Your task to perform on an android device: change text size in settings app Image 0: 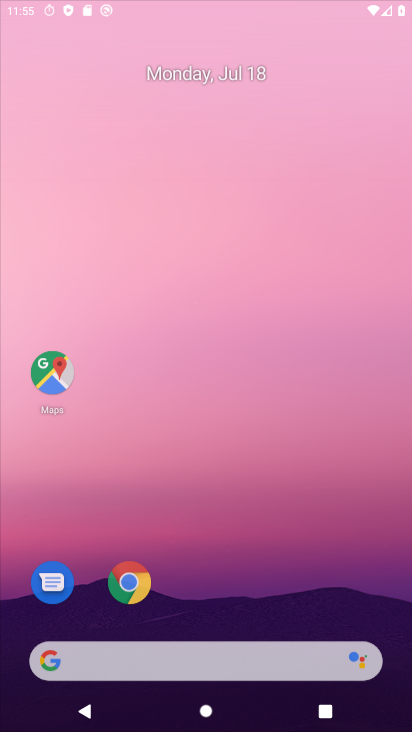
Step 0: click (197, 206)
Your task to perform on an android device: change text size in settings app Image 1: 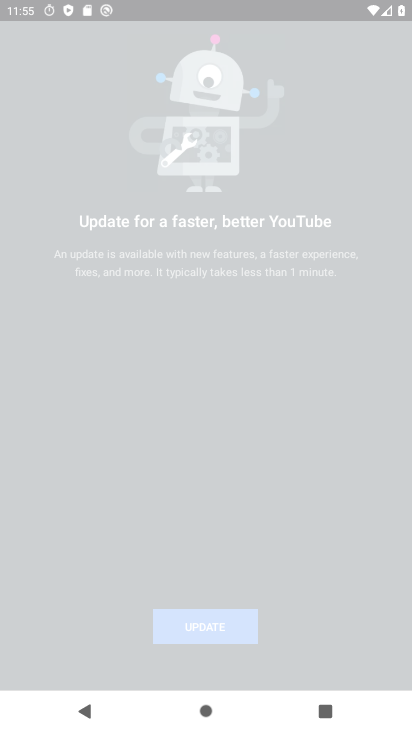
Step 1: drag from (245, 535) to (245, 132)
Your task to perform on an android device: change text size in settings app Image 2: 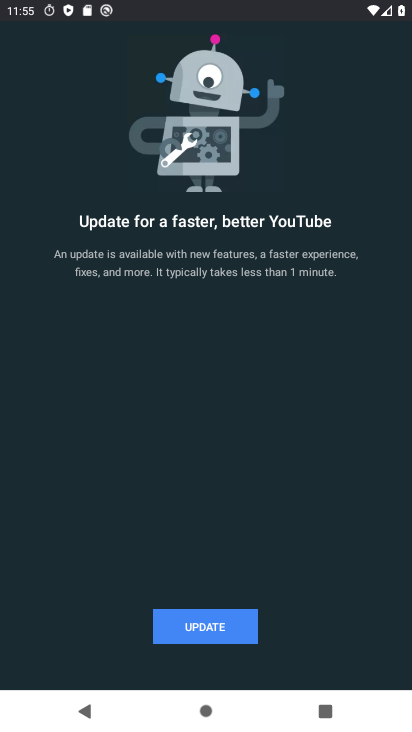
Step 2: press back button
Your task to perform on an android device: change text size in settings app Image 3: 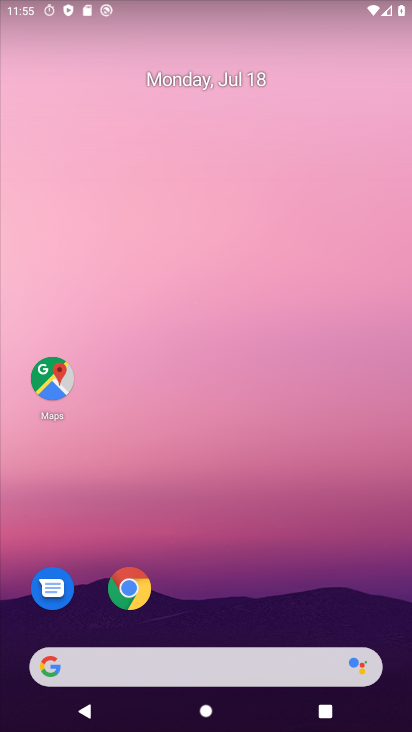
Step 3: drag from (228, 624) to (205, 87)
Your task to perform on an android device: change text size in settings app Image 4: 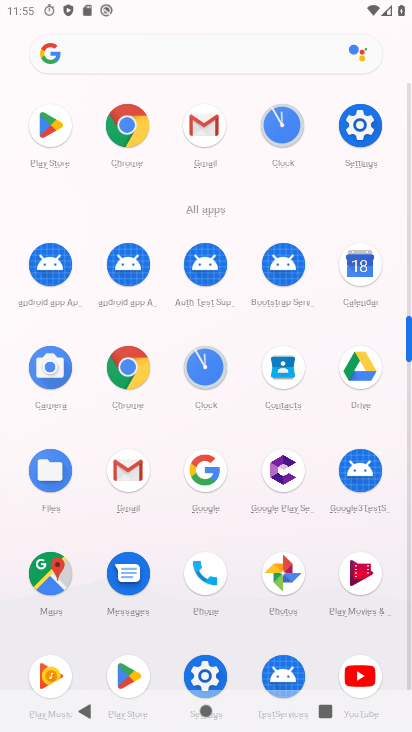
Step 4: drag from (218, 525) to (201, 193)
Your task to perform on an android device: change text size in settings app Image 5: 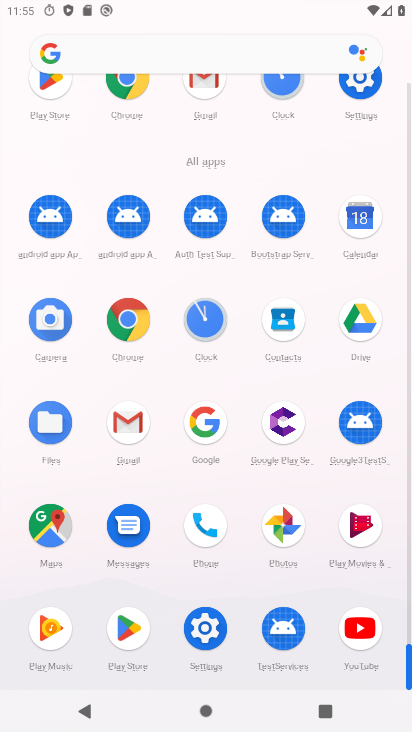
Step 5: click (197, 628)
Your task to perform on an android device: change text size in settings app Image 6: 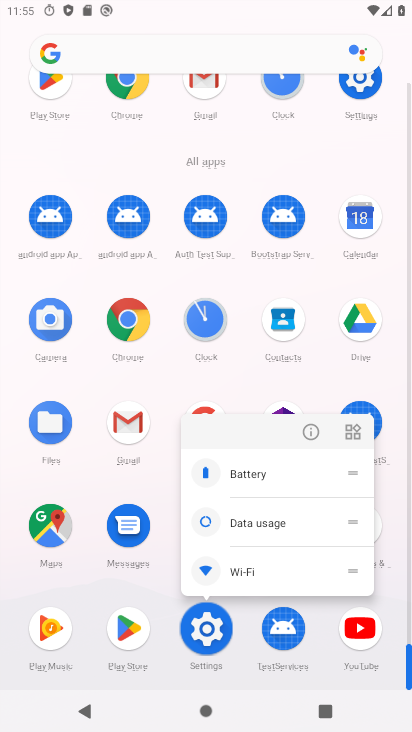
Step 6: click (197, 628)
Your task to perform on an android device: change text size in settings app Image 7: 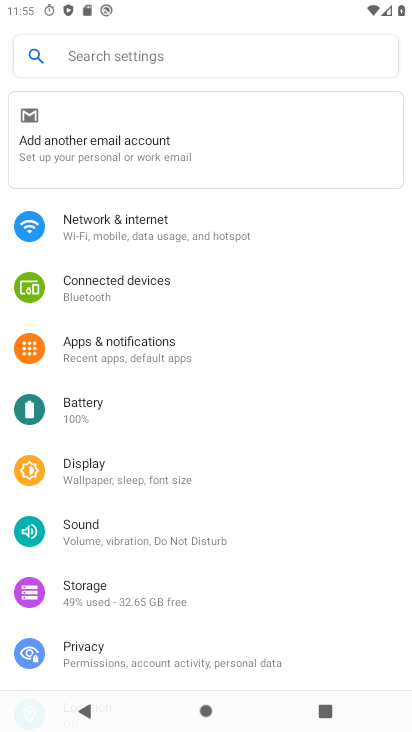
Step 7: click (88, 469)
Your task to perform on an android device: change text size in settings app Image 8: 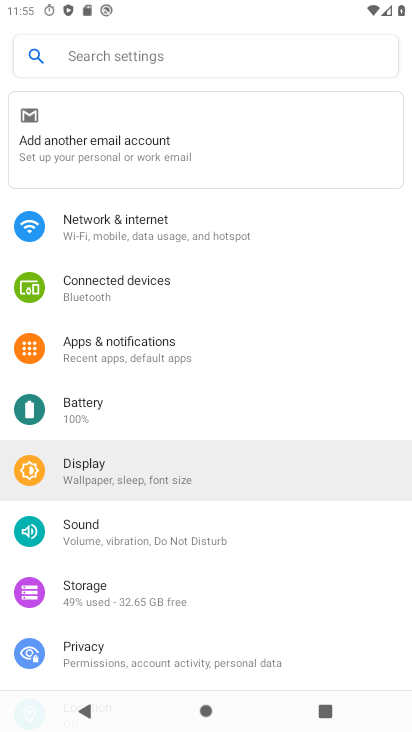
Step 8: click (90, 471)
Your task to perform on an android device: change text size in settings app Image 9: 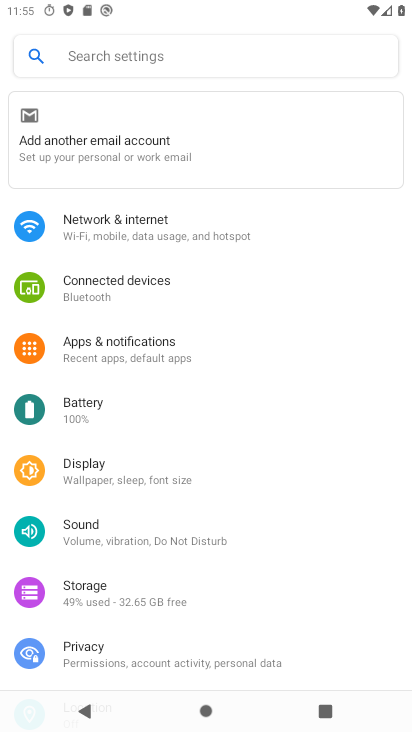
Step 9: click (91, 472)
Your task to perform on an android device: change text size in settings app Image 10: 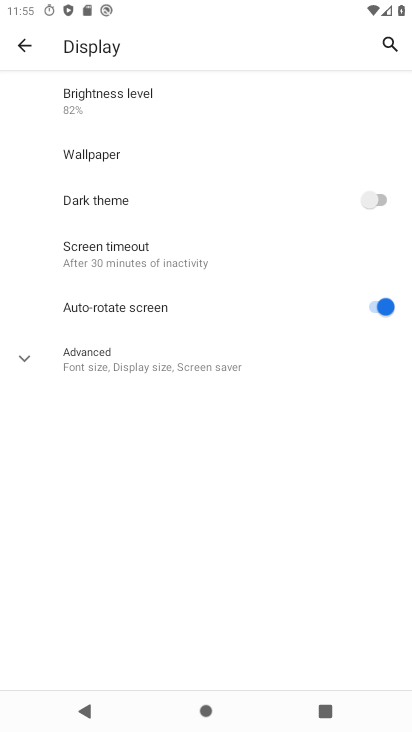
Step 10: click (95, 358)
Your task to perform on an android device: change text size in settings app Image 11: 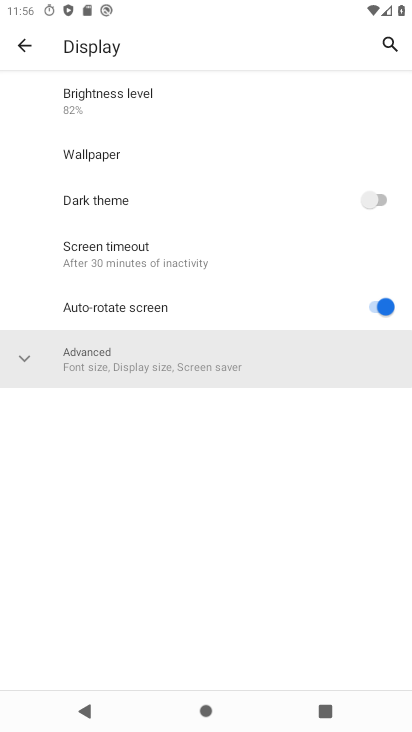
Step 11: click (96, 359)
Your task to perform on an android device: change text size in settings app Image 12: 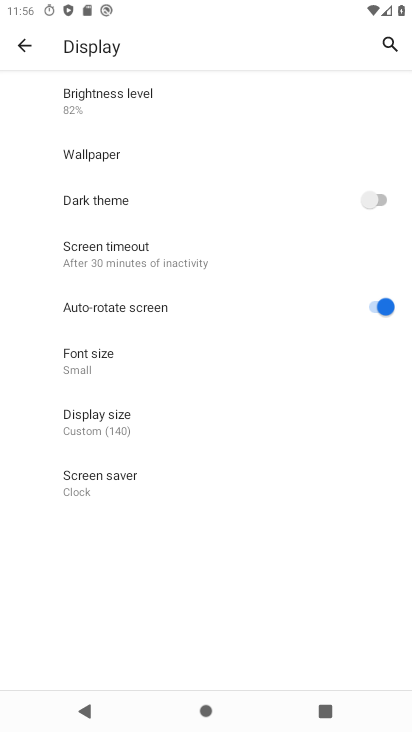
Step 12: click (98, 360)
Your task to perform on an android device: change text size in settings app Image 13: 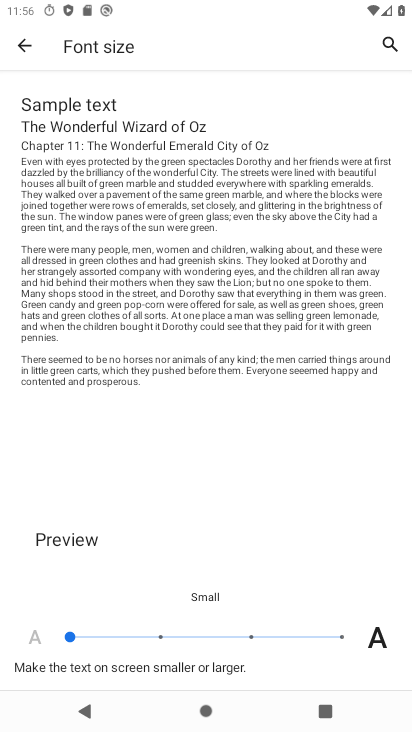
Step 13: click (337, 637)
Your task to perform on an android device: change text size in settings app Image 14: 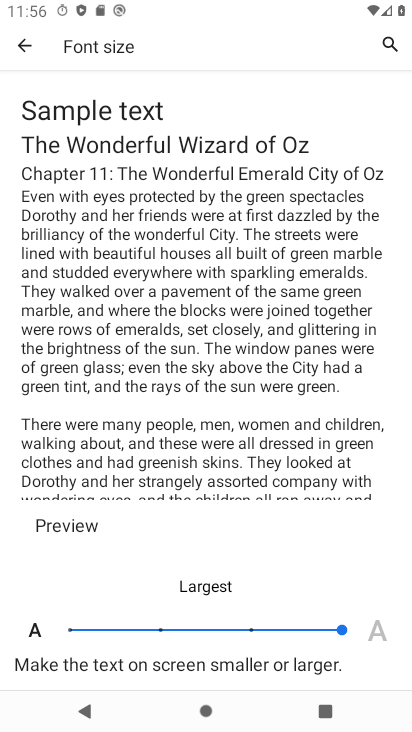
Step 14: task complete